Your task to perform on an android device: What's on my calendar tomorrow? Image 0: 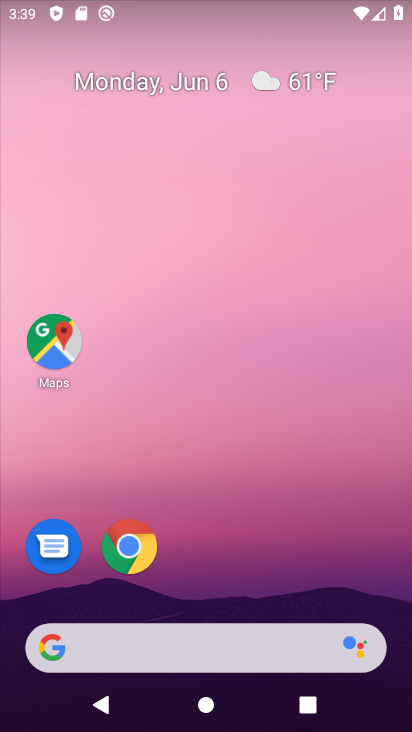
Step 0: drag from (195, 730) to (209, 110)
Your task to perform on an android device: What's on my calendar tomorrow? Image 1: 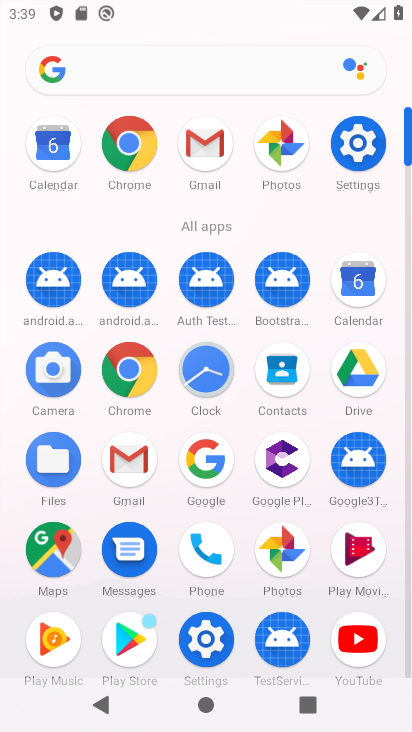
Step 1: click (362, 279)
Your task to perform on an android device: What's on my calendar tomorrow? Image 2: 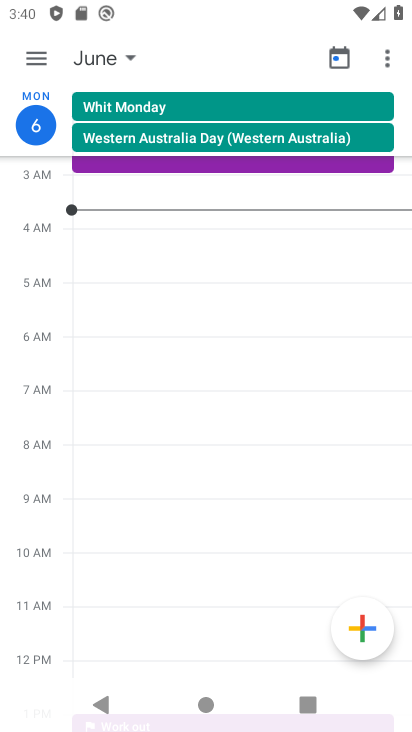
Step 2: click (133, 60)
Your task to perform on an android device: What's on my calendar tomorrow? Image 3: 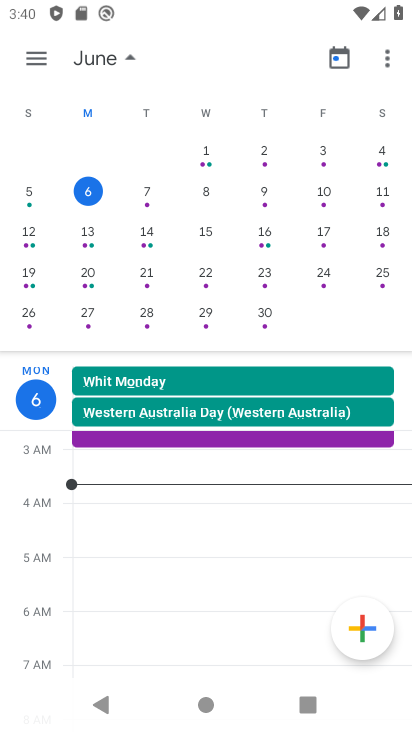
Step 3: click (148, 192)
Your task to perform on an android device: What's on my calendar tomorrow? Image 4: 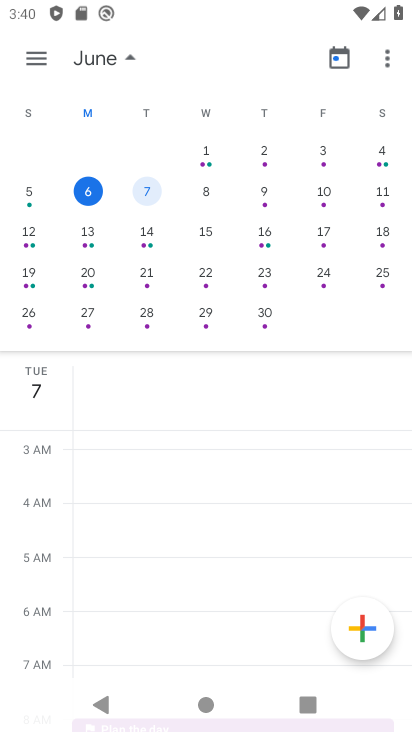
Step 4: click (148, 192)
Your task to perform on an android device: What's on my calendar tomorrow? Image 5: 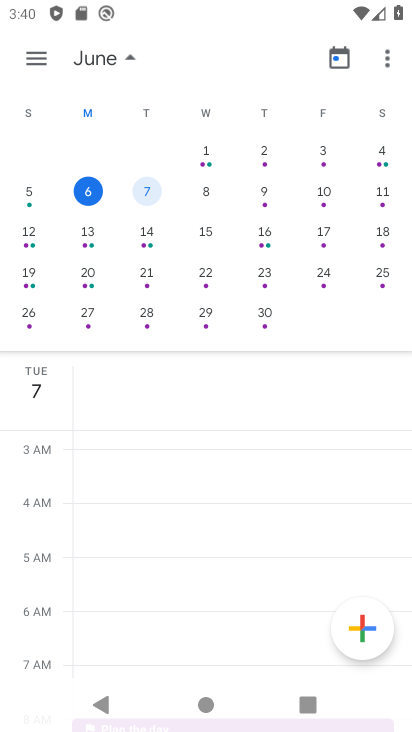
Step 5: click (145, 186)
Your task to perform on an android device: What's on my calendar tomorrow? Image 6: 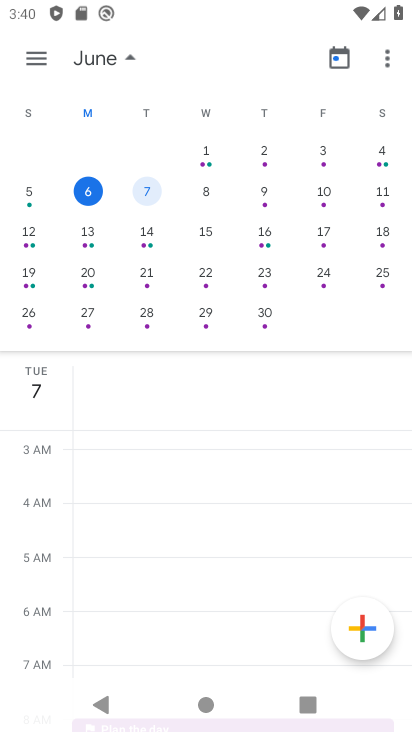
Step 6: click (132, 56)
Your task to perform on an android device: What's on my calendar tomorrow? Image 7: 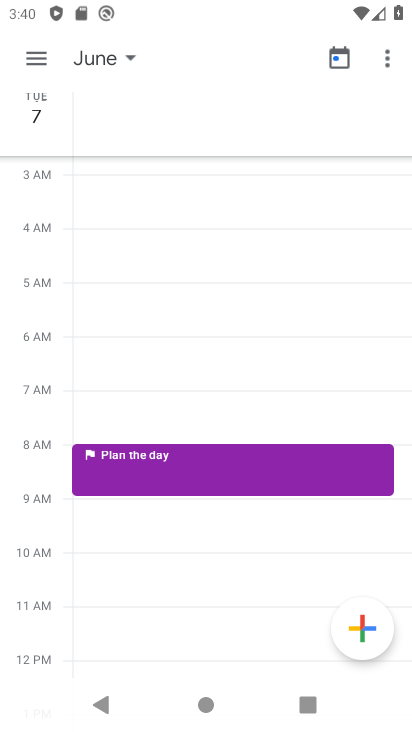
Step 7: task complete